Your task to perform on an android device: turn on translation in the chrome app Image 0: 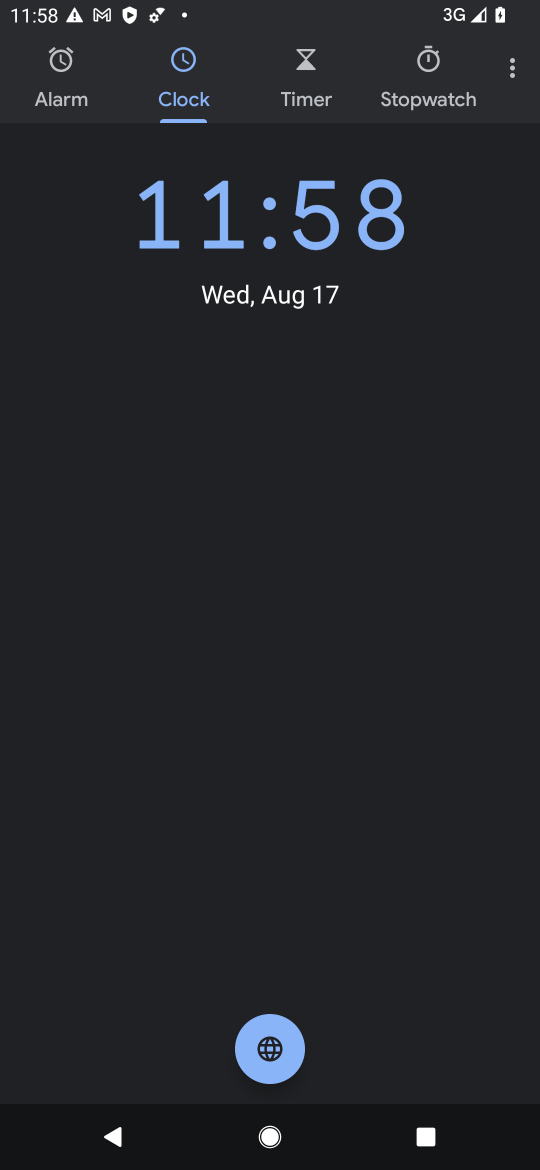
Step 0: press home button
Your task to perform on an android device: turn on translation in the chrome app Image 1: 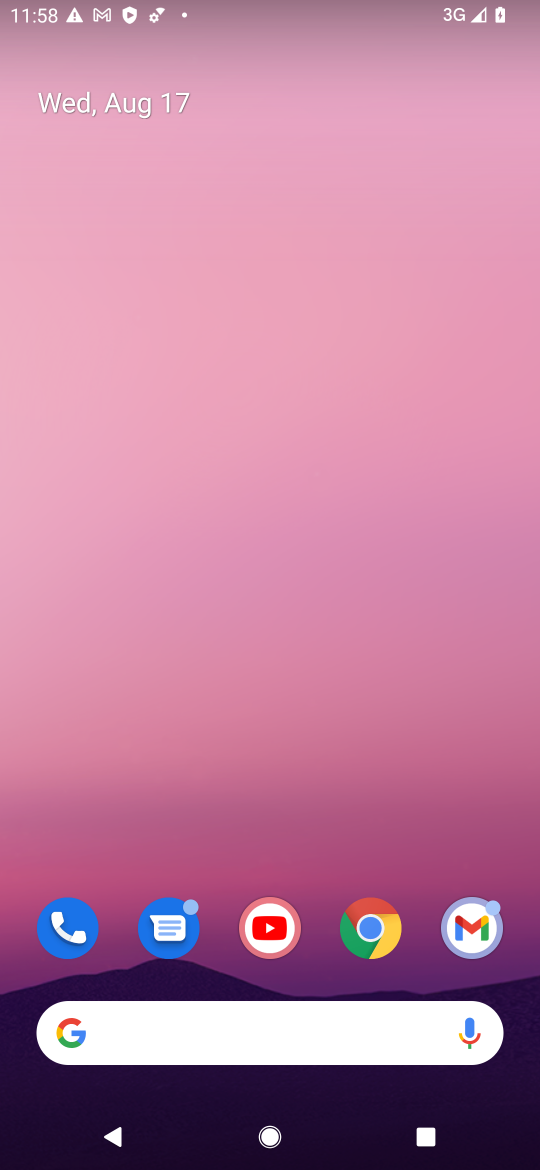
Step 1: click (354, 915)
Your task to perform on an android device: turn on translation in the chrome app Image 2: 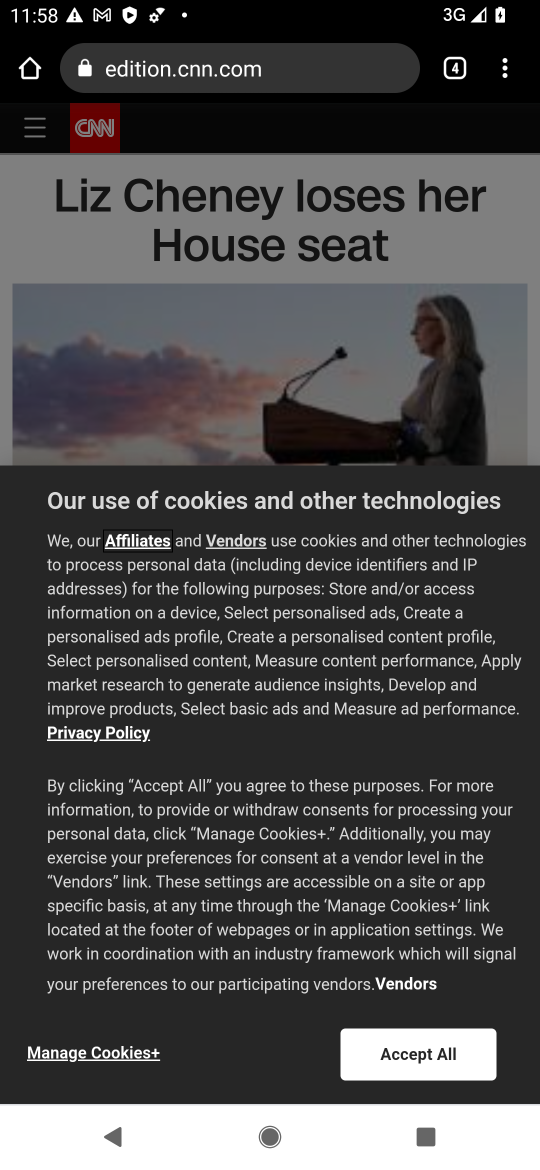
Step 2: click (500, 80)
Your task to perform on an android device: turn on translation in the chrome app Image 3: 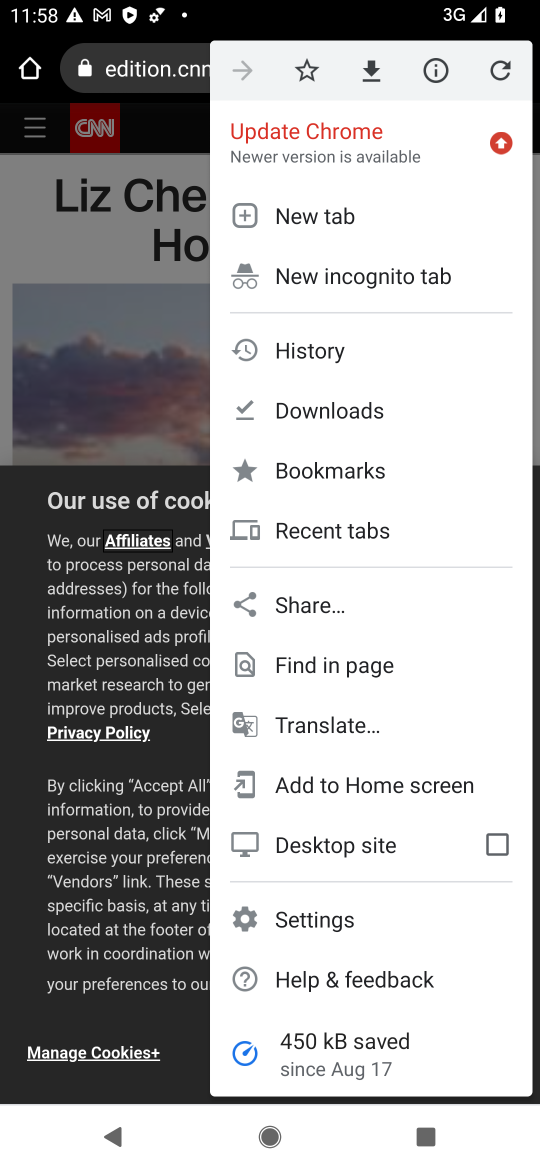
Step 3: click (285, 930)
Your task to perform on an android device: turn on translation in the chrome app Image 4: 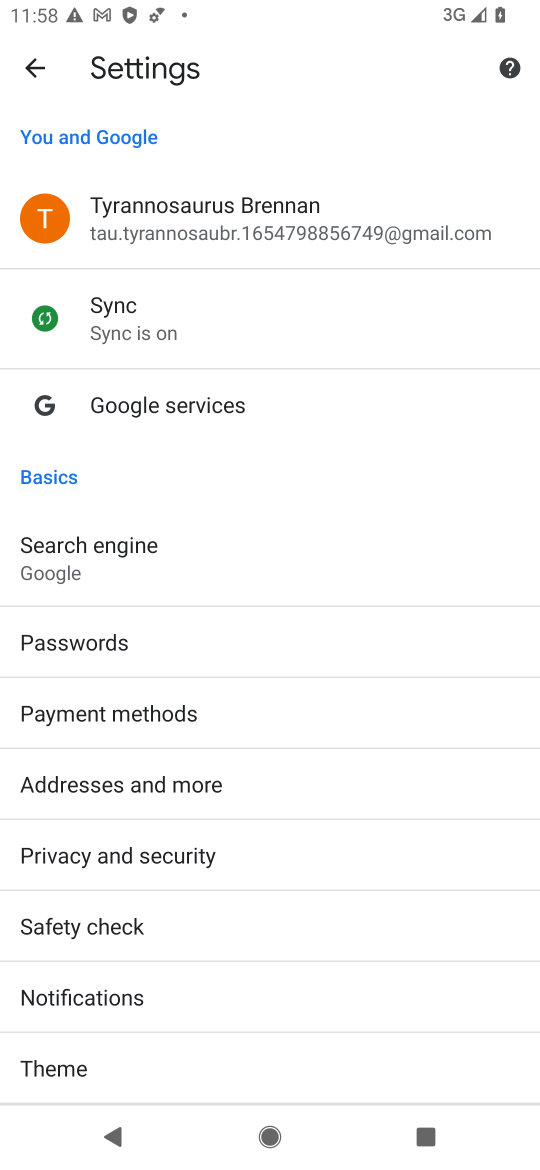
Step 4: drag from (198, 988) to (219, 474)
Your task to perform on an android device: turn on translation in the chrome app Image 5: 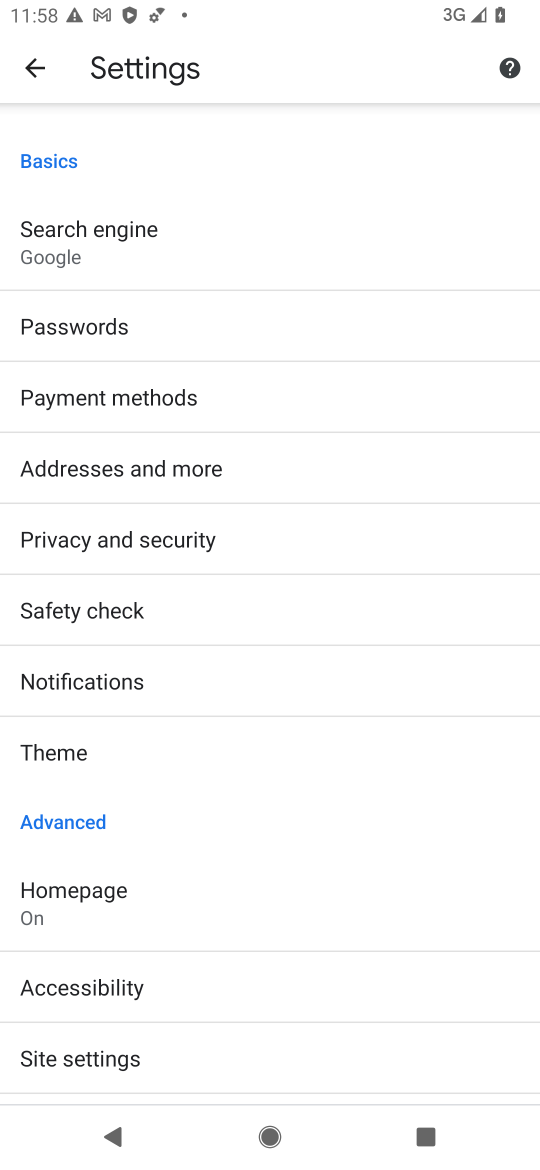
Step 5: drag from (152, 1003) to (207, 444)
Your task to perform on an android device: turn on translation in the chrome app Image 6: 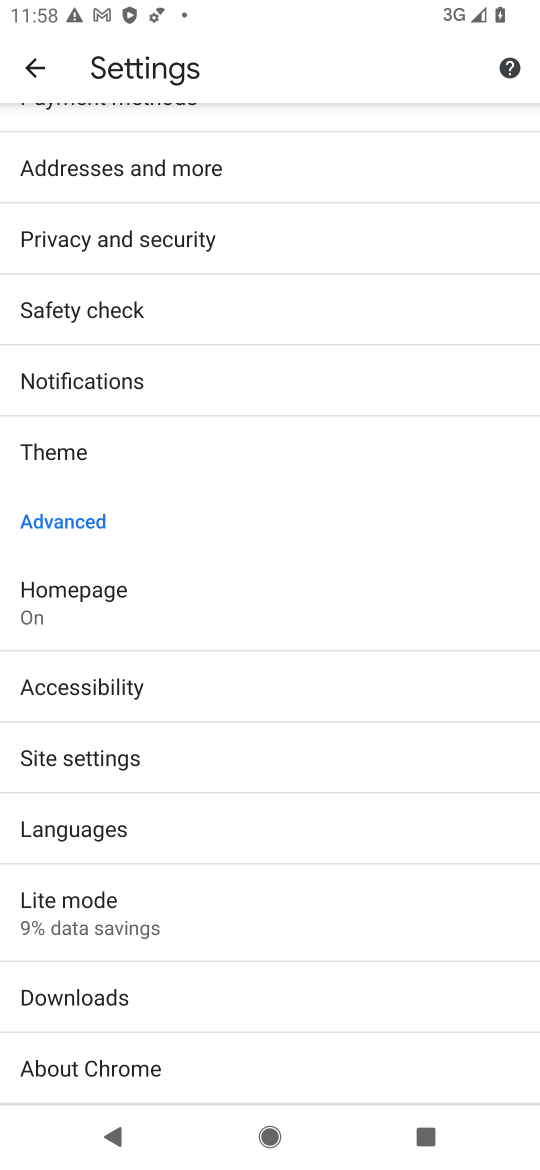
Step 6: click (136, 841)
Your task to perform on an android device: turn on translation in the chrome app Image 7: 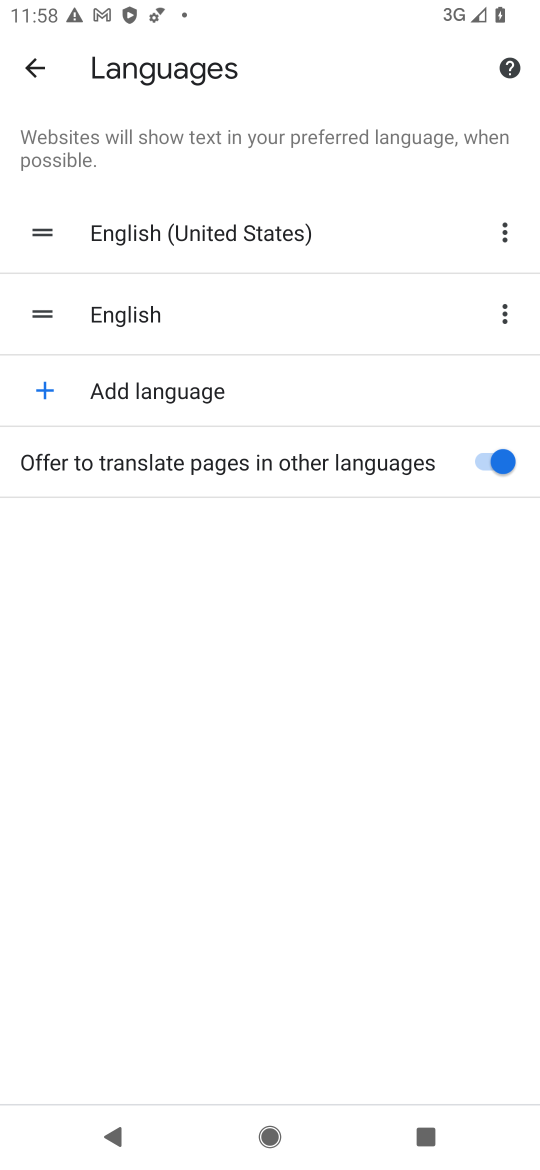
Step 7: task complete